Your task to perform on an android device: What's the speed of light? Image 0: 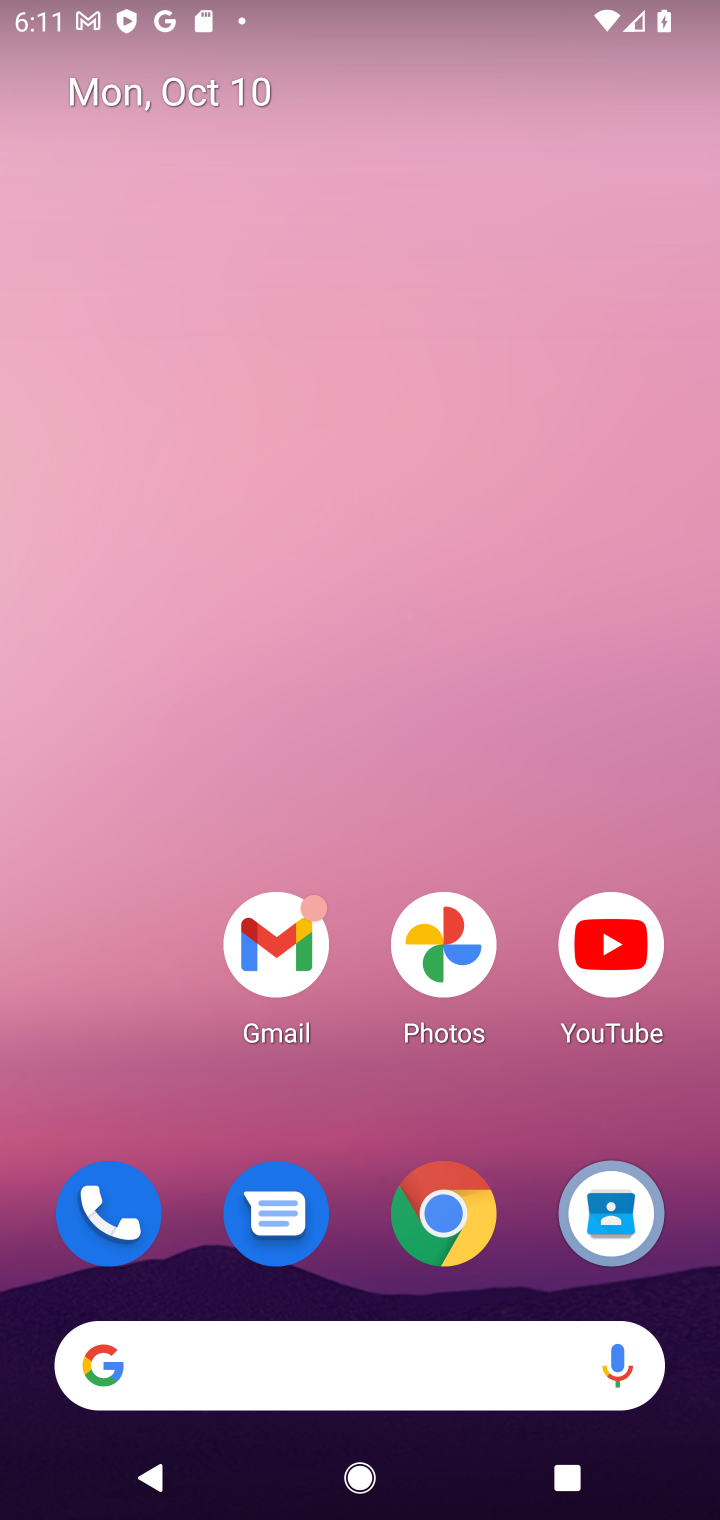
Step 0: click (374, 1347)
Your task to perform on an android device: What's the speed of light? Image 1: 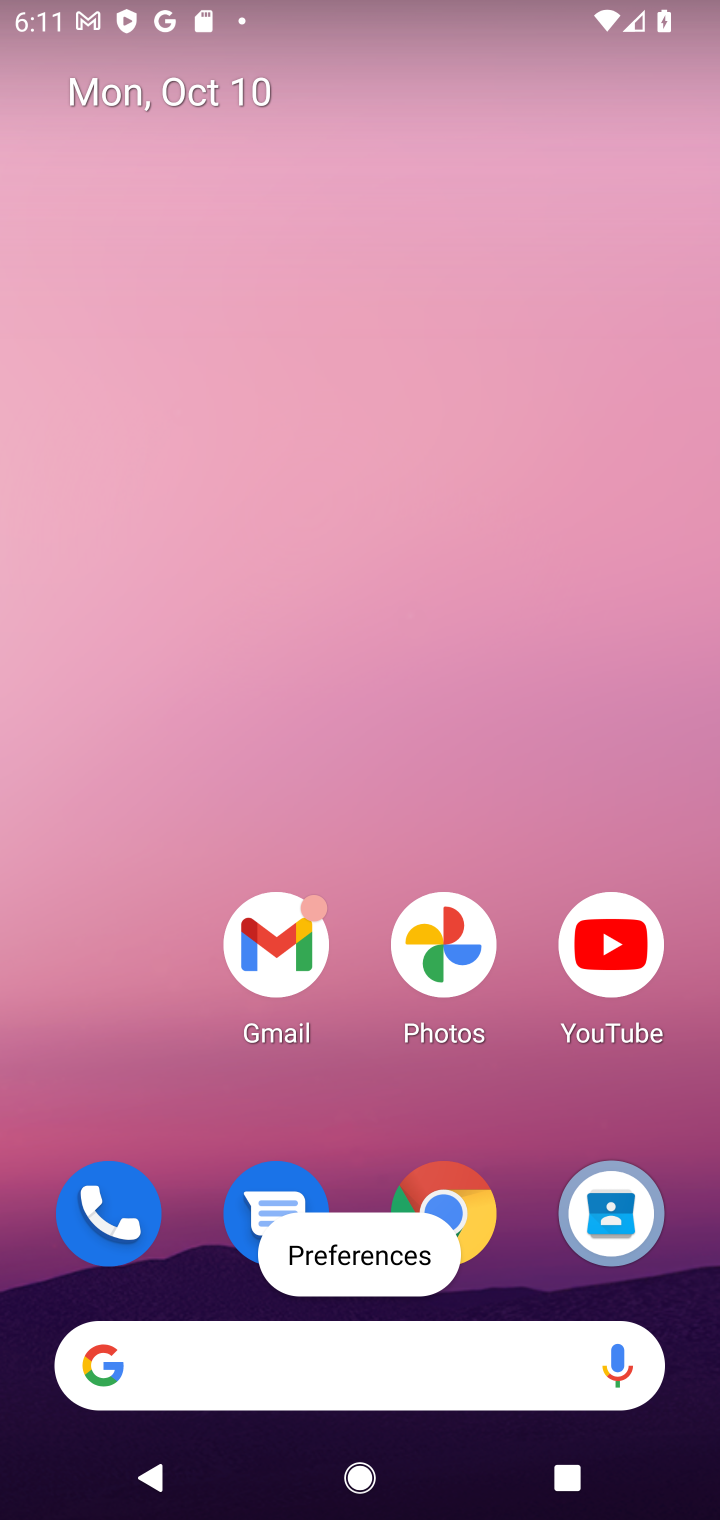
Step 1: click (286, 1348)
Your task to perform on an android device: What's the speed of light? Image 2: 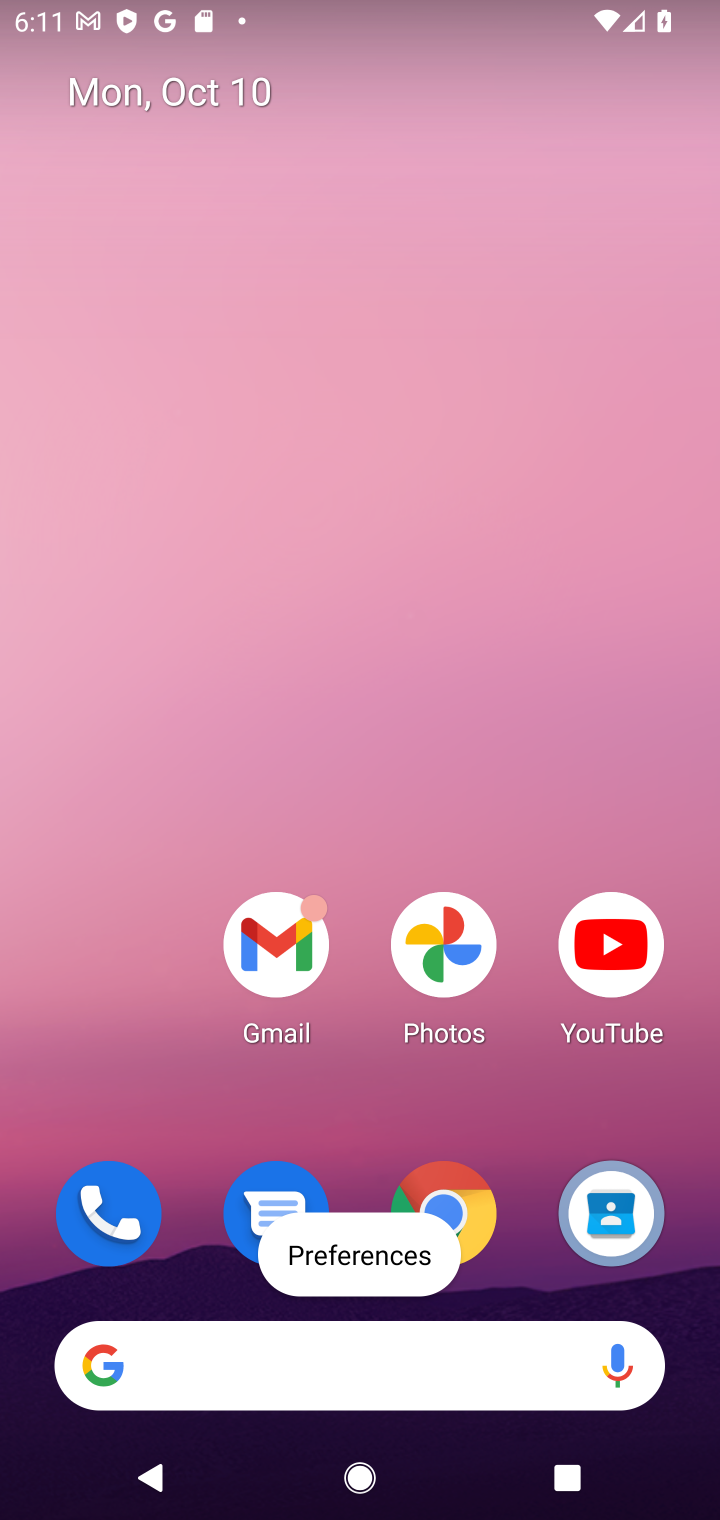
Step 2: click (286, 1348)
Your task to perform on an android device: What's the speed of light? Image 3: 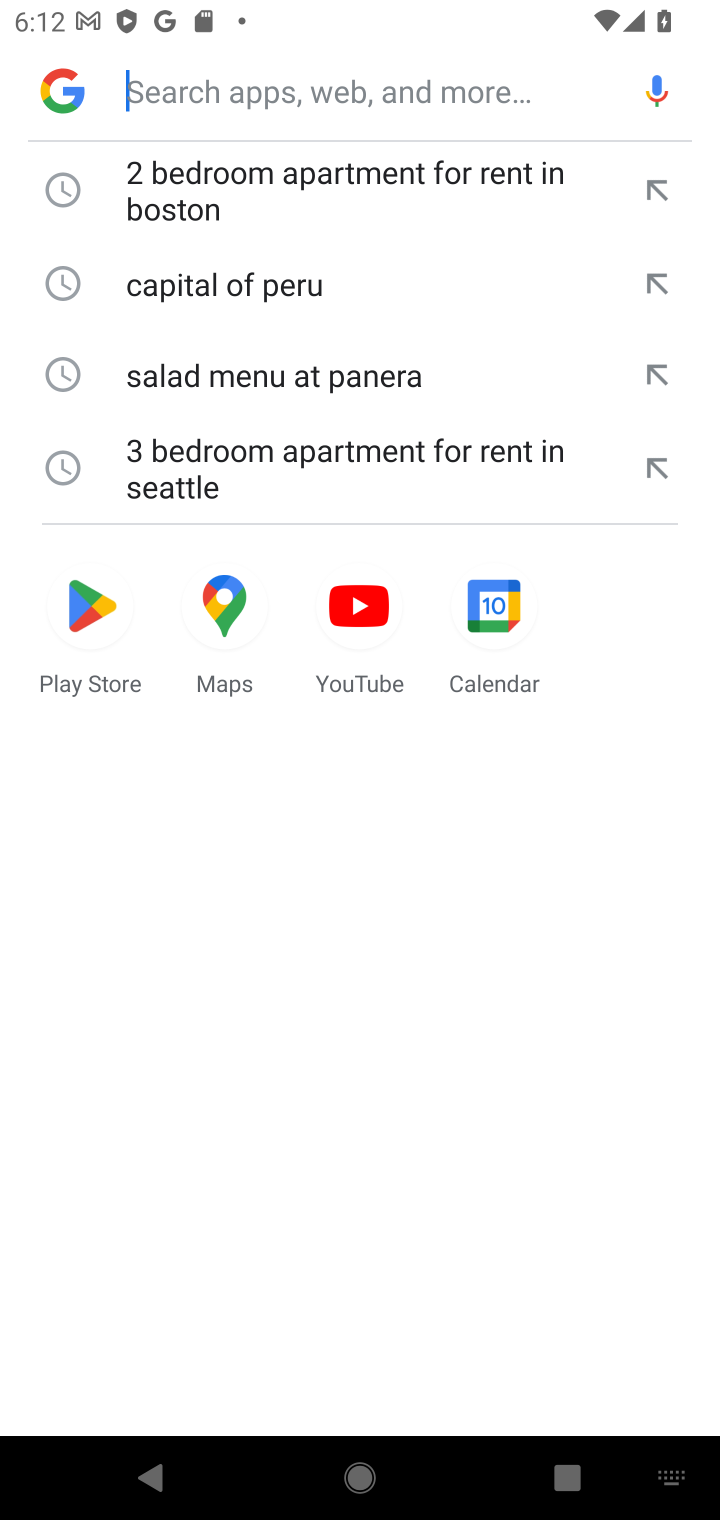
Step 3: type "speed of light"
Your task to perform on an android device: What's the speed of light? Image 4: 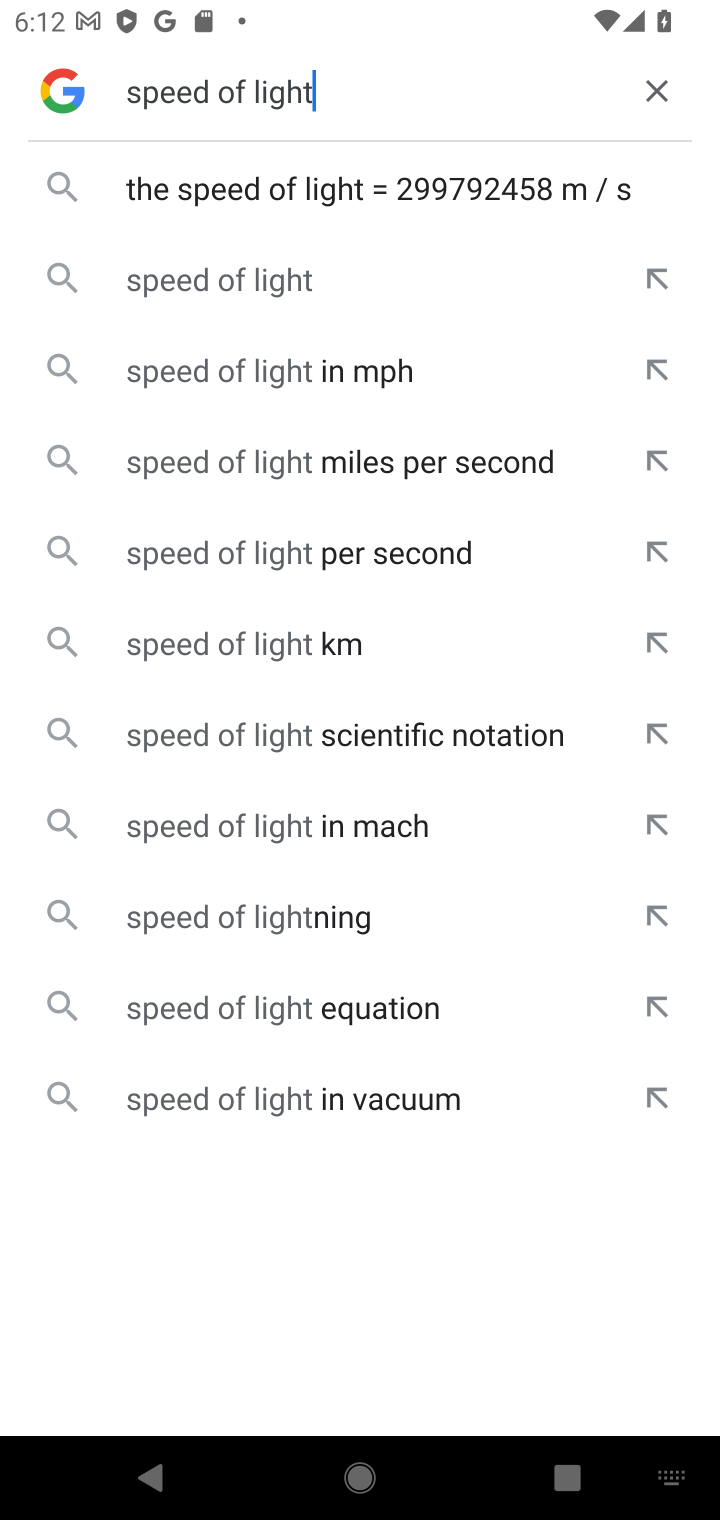
Step 4: click (291, 262)
Your task to perform on an android device: What's the speed of light? Image 5: 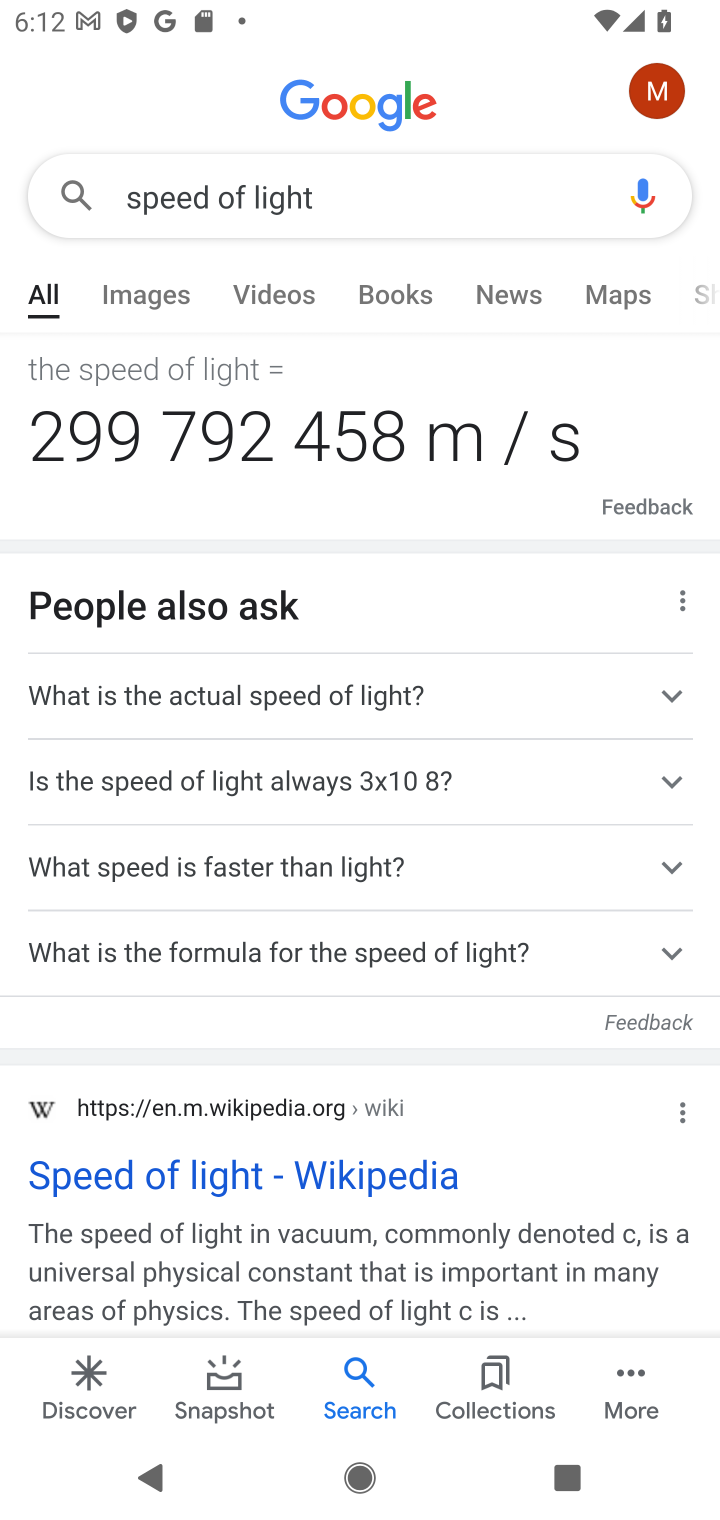
Step 5: task complete